Your task to perform on an android device: turn on javascript in the chrome app Image 0: 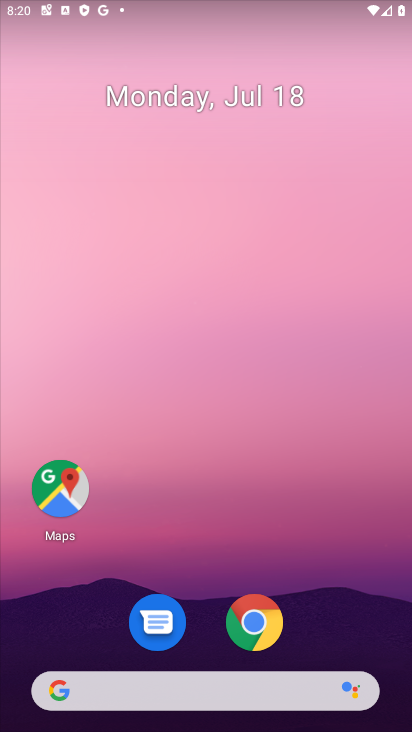
Step 0: drag from (248, 648) to (263, 200)
Your task to perform on an android device: turn on javascript in the chrome app Image 1: 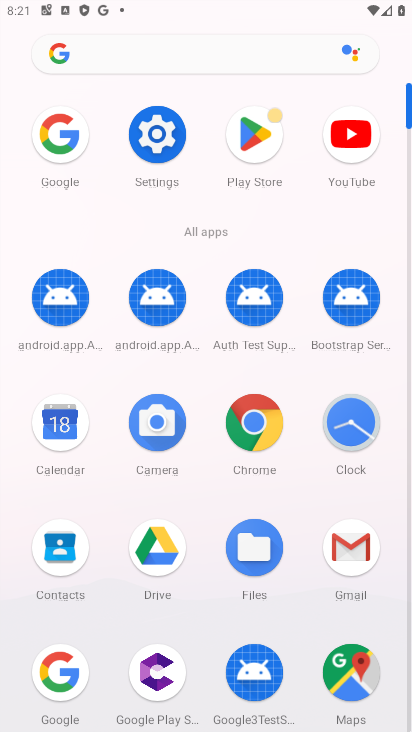
Step 1: click (264, 429)
Your task to perform on an android device: turn on javascript in the chrome app Image 2: 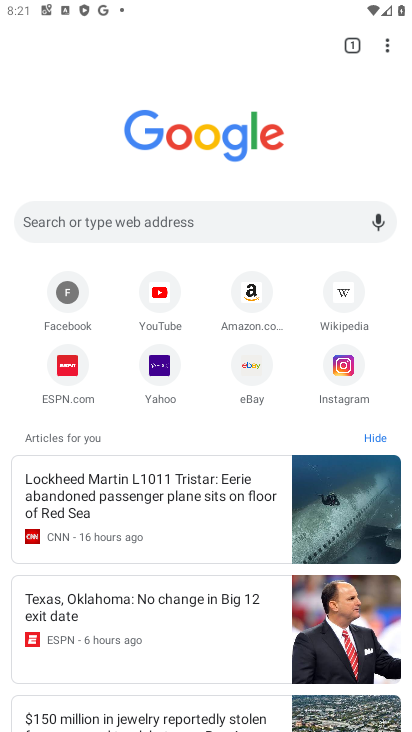
Step 2: click (386, 44)
Your task to perform on an android device: turn on javascript in the chrome app Image 3: 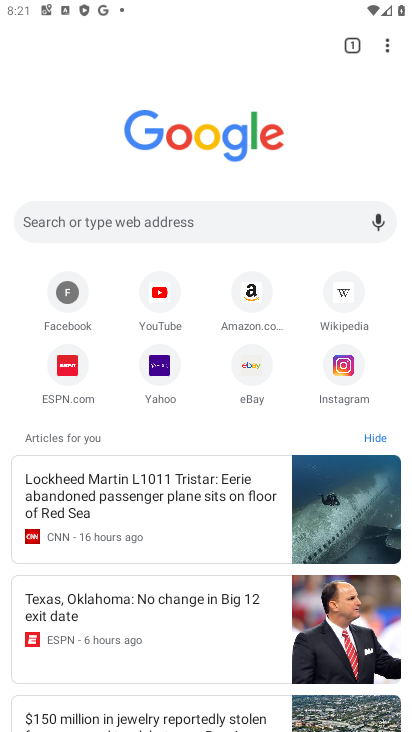
Step 3: click (387, 51)
Your task to perform on an android device: turn on javascript in the chrome app Image 4: 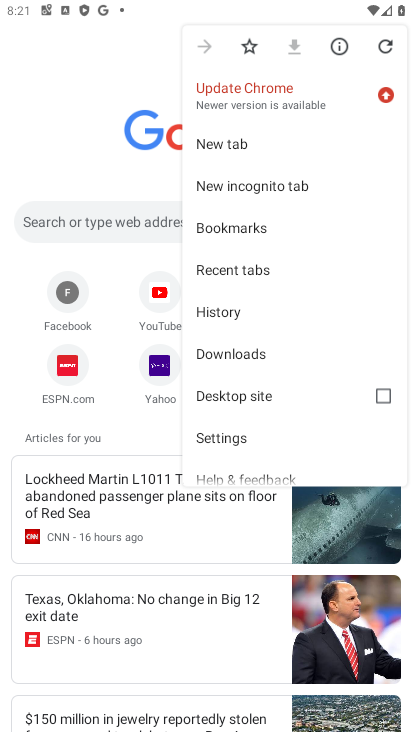
Step 4: click (245, 440)
Your task to perform on an android device: turn on javascript in the chrome app Image 5: 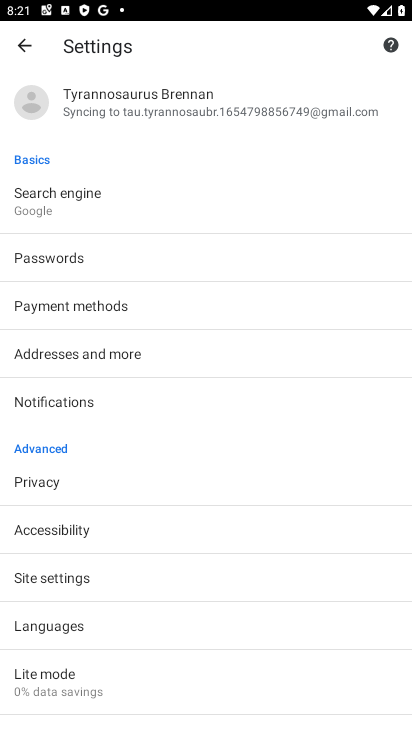
Step 5: click (94, 581)
Your task to perform on an android device: turn on javascript in the chrome app Image 6: 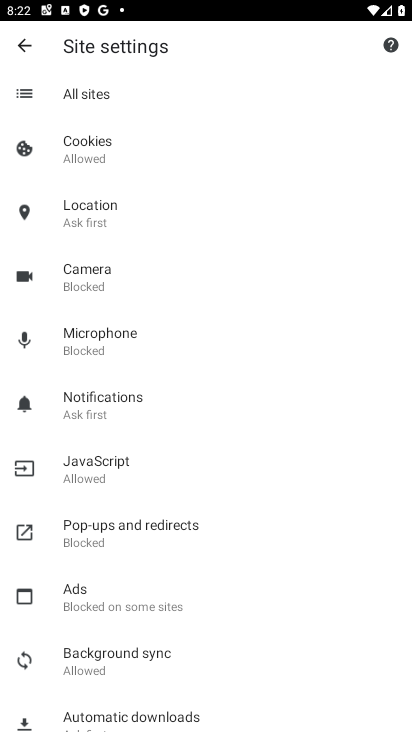
Step 6: click (103, 484)
Your task to perform on an android device: turn on javascript in the chrome app Image 7: 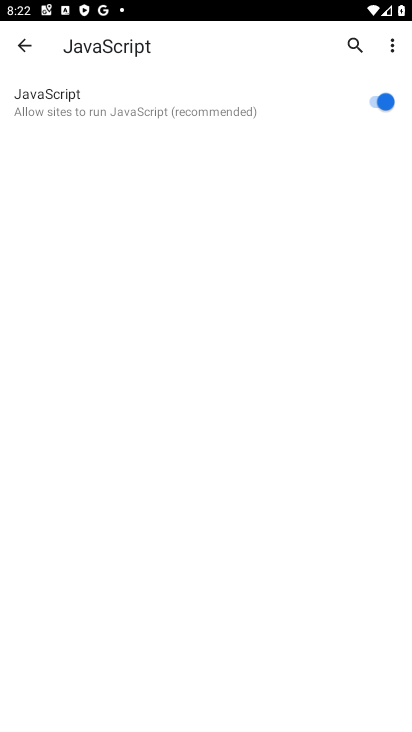
Step 7: task complete